Your task to perform on an android device: open sync settings in chrome Image 0: 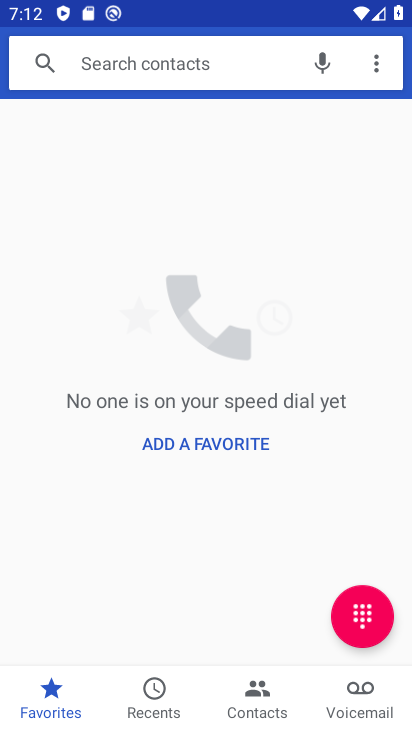
Step 0: press home button
Your task to perform on an android device: open sync settings in chrome Image 1: 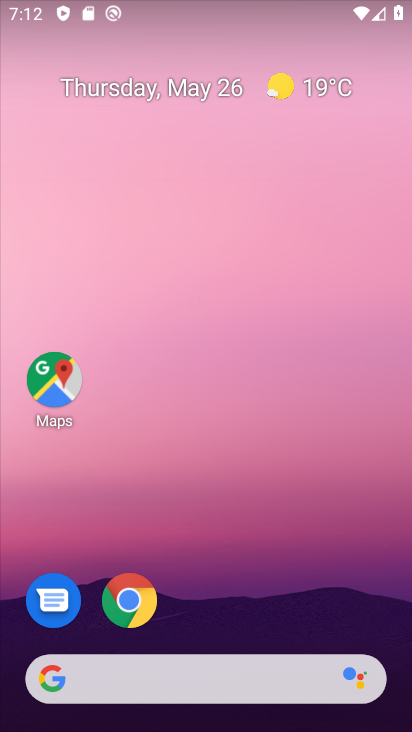
Step 1: drag from (355, 704) to (319, 138)
Your task to perform on an android device: open sync settings in chrome Image 2: 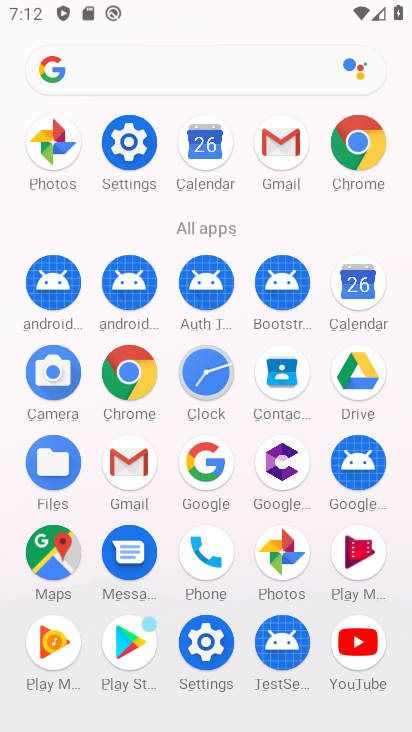
Step 2: click (351, 169)
Your task to perform on an android device: open sync settings in chrome Image 3: 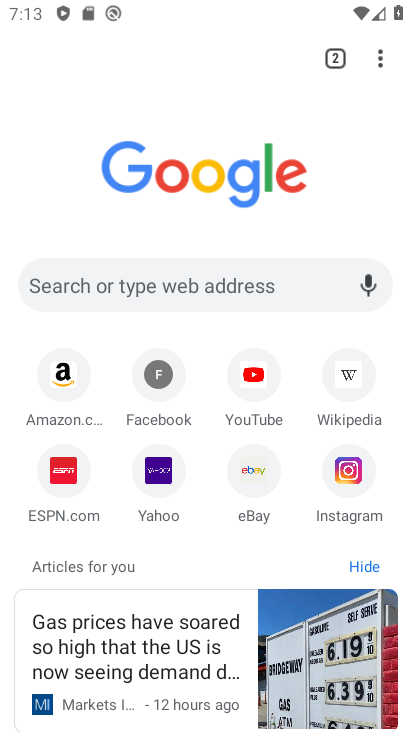
Step 3: click (368, 55)
Your task to perform on an android device: open sync settings in chrome Image 4: 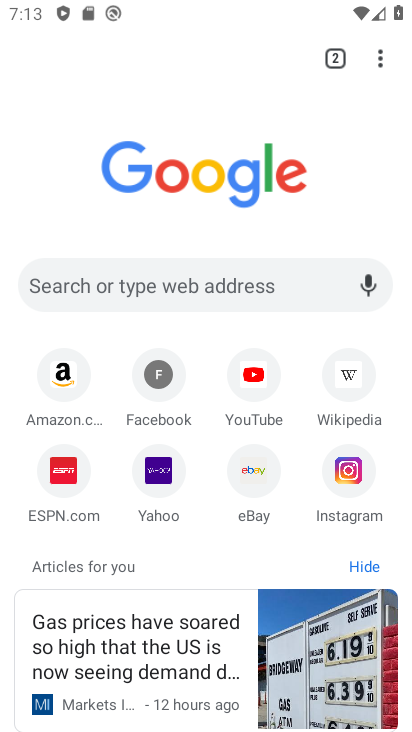
Step 4: click (380, 61)
Your task to perform on an android device: open sync settings in chrome Image 5: 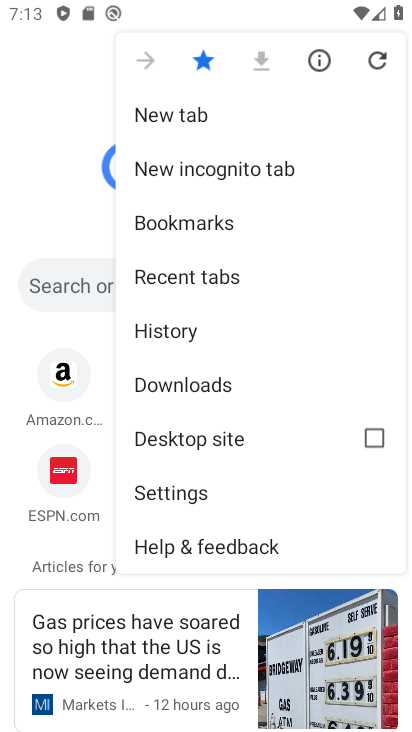
Step 5: click (219, 490)
Your task to perform on an android device: open sync settings in chrome Image 6: 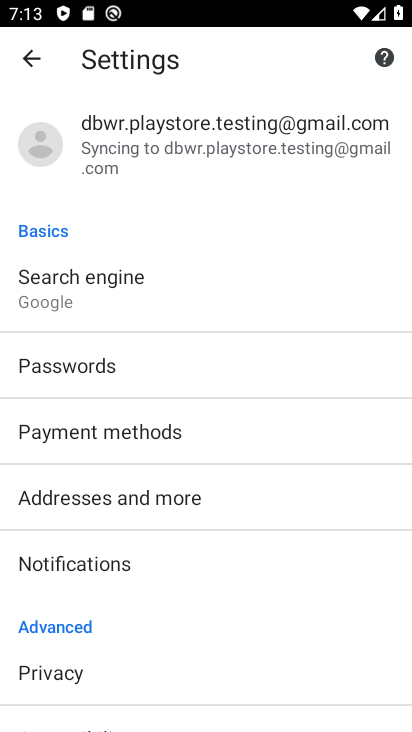
Step 6: drag from (145, 598) to (200, 342)
Your task to perform on an android device: open sync settings in chrome Image 7: 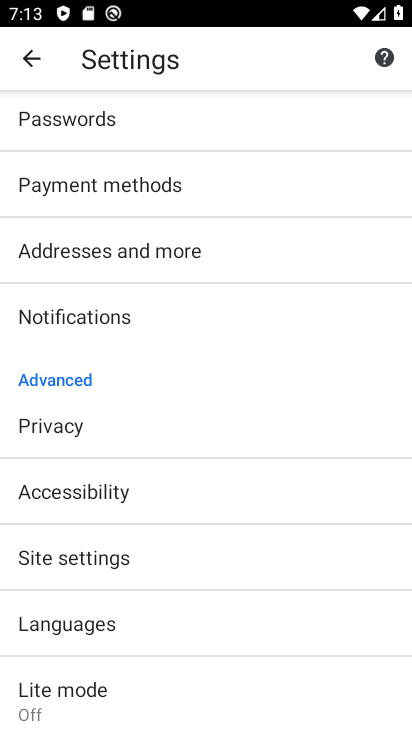
Step 7: click (142, 553)
Your task to perform on an android device: open sync settings in chrome Image 8: 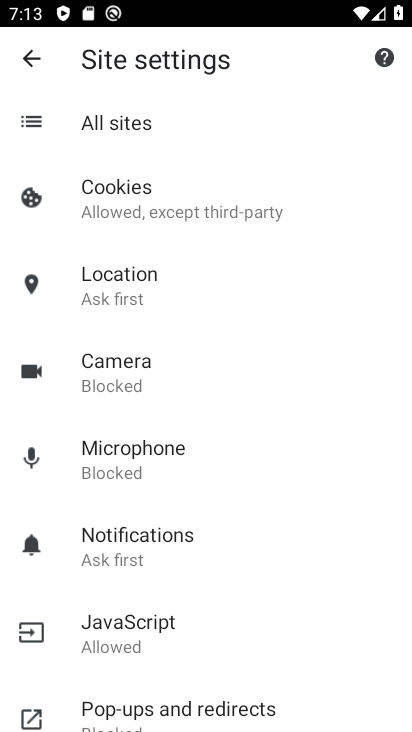
Step 8: drag from (171, 600) to (246, 337)
Your task to perform on an android device: open sync settings in chrome Image 9: 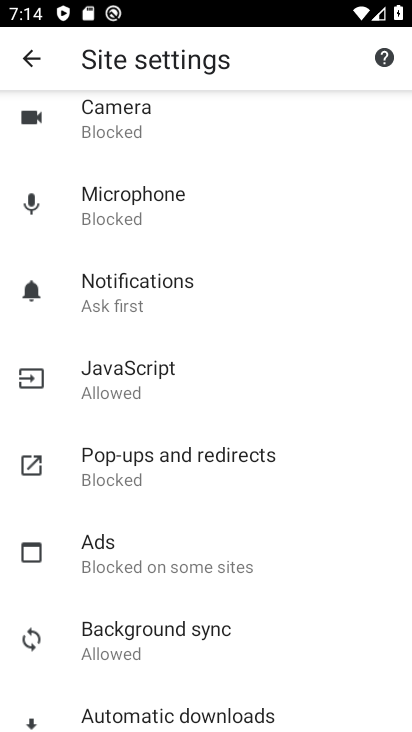
Step 9: click (160, 631)
Your task to perform on an android device: open sync settings in chrome Image 10: 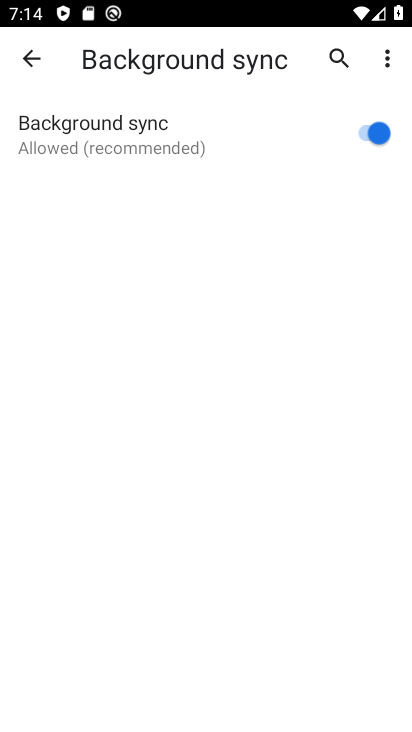
Step 10: task complete